Your task to perform on an android device: turn on javascript in the chrome app Image 0: 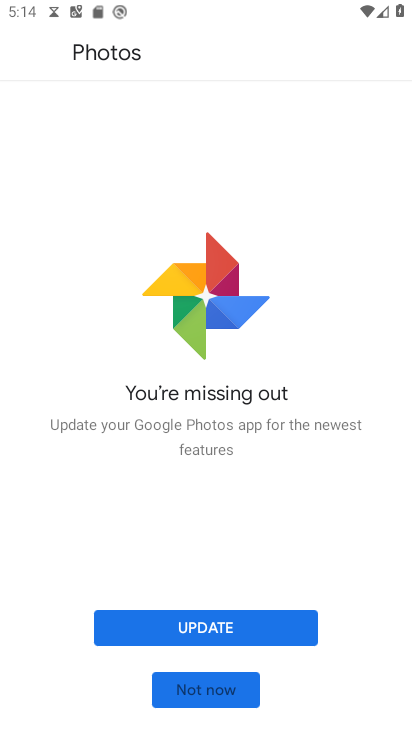
Step 0: press home button
Your task to perform on an android device: turn on javascript in the chrome app Image 1: 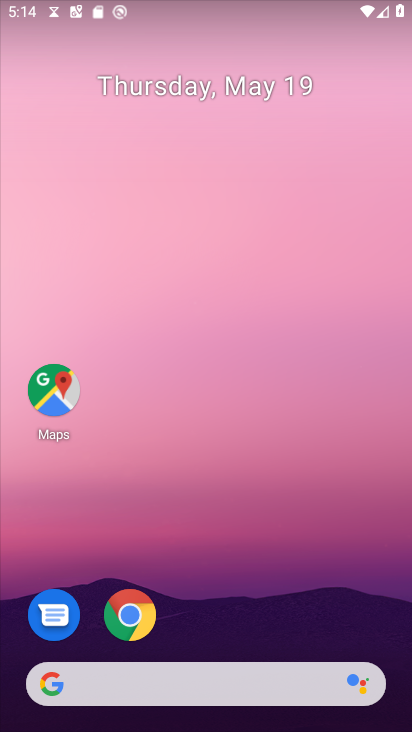
Step 1: drag from (172, 709) to (233, 68)
Your task to perform on an android device: turn on javascript in the chrome app Image 2: 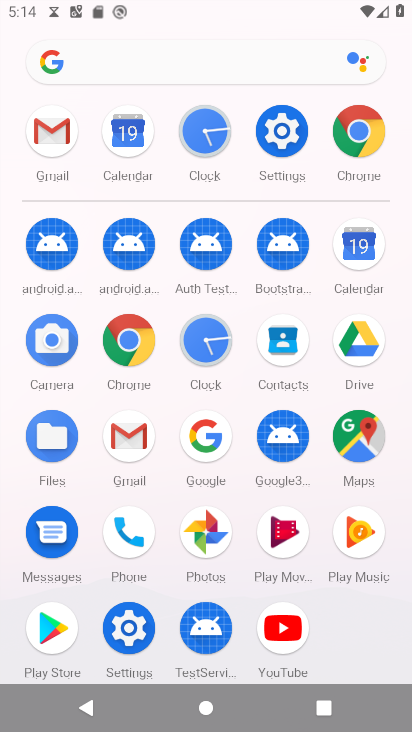
Step 2: click (135, 340)
Your task to perform on an android device: turn on javascript in the chrome app Image 3: 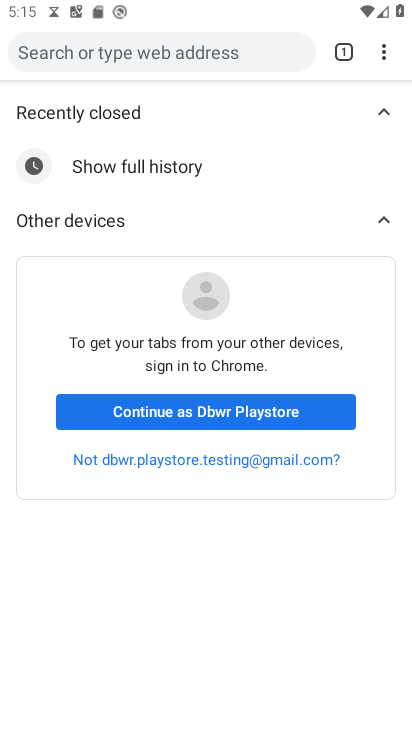
Step 3: drag from (390, 50) to (213, 443)
Your task to perform on an android device: turn on javascript in the chrome app Image 4: 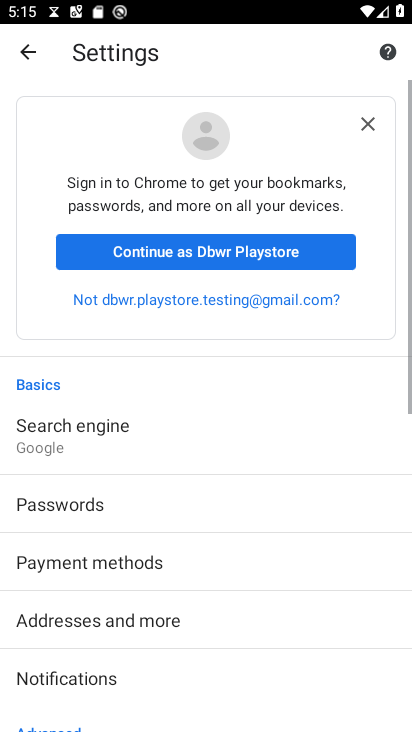
Step 4: drag from (260, 575) to (226, 71)
Your task to perform on an android device: turn on javascript in the chrome app Image 5: 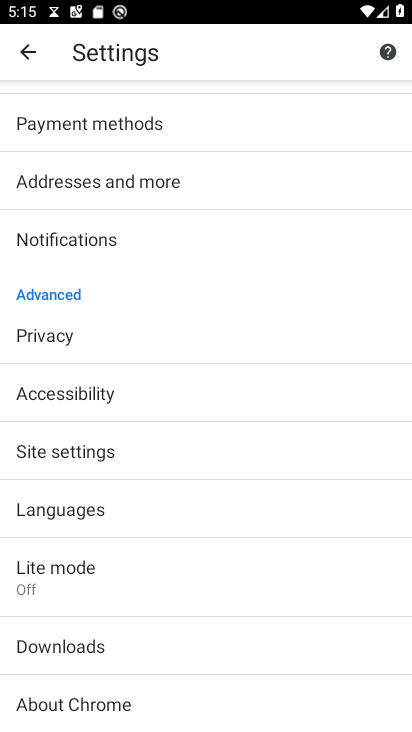
Step 5: click (91, 460)
Your task to perform on an android device: turn on javascript in the chrome app Image 6: 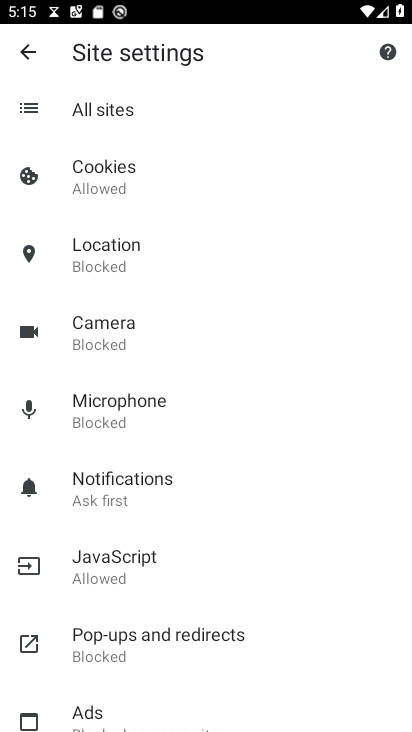
Step 6: click (161, 566)
Your task to perform on an android device: turn on javascript in the chrome app Image 7: 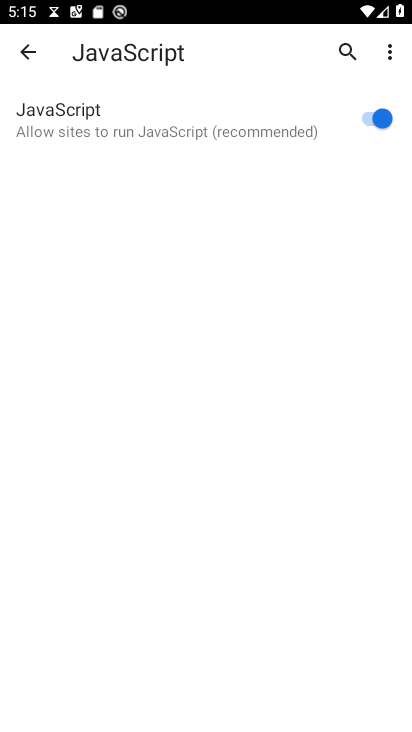
Step 7: task complete